Your task to perform on an android device: What's the weather going to be tomorrow? Image 0: 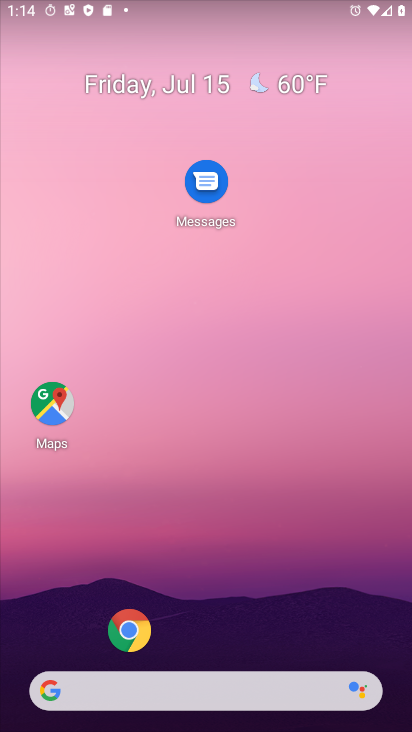
Step 0: click (119, 702)
Your task to perform on an android device: What's the weather going to be tomorrow? Image 1: 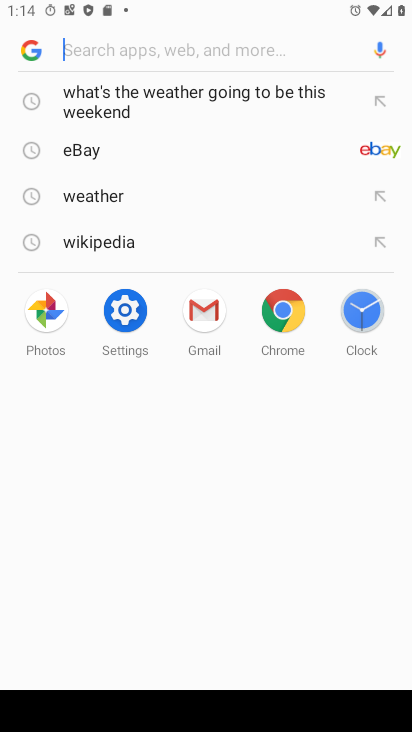
Step 1: type "What's the weather going to be tomorrow?"
Your task to perform on an android device: What's the weather going to be tomorrow? Image 2: 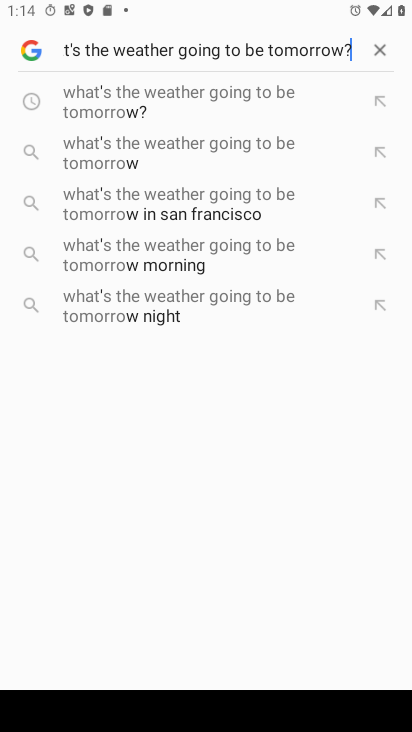
Step 2: type ""
Your task to perform on an android device: What's the weather going to be tomorrow? Image 3: 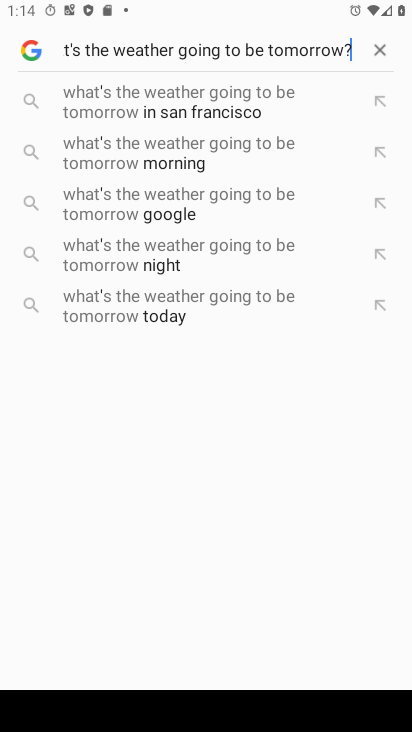
Step 3: type ""
Your task to perform on an android device: What's the weather going to be tomorrow? Image 4: 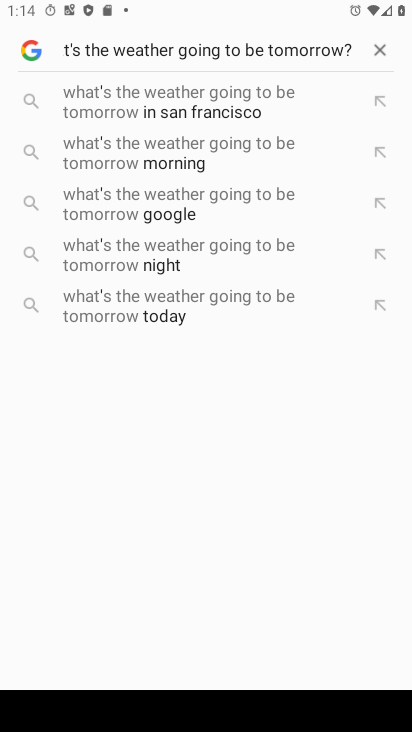
Step 4: type ""
Your task to perform on an android device: What's the weather going to be tomorrow? Image 5: 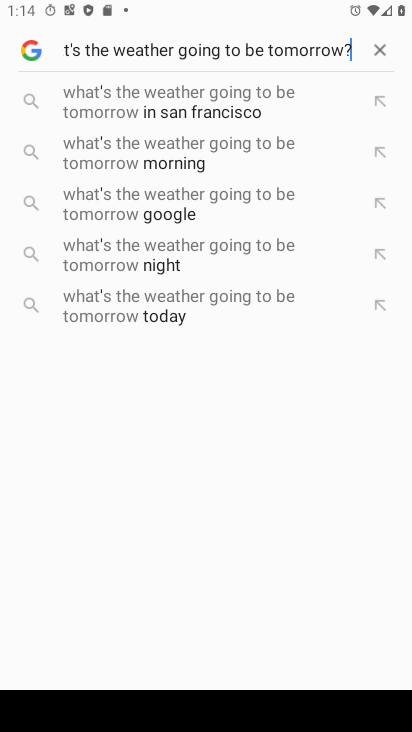
Step 5: type ""
Your task to perform on an android device: What's the weather going to be tomorrow? Image 6: 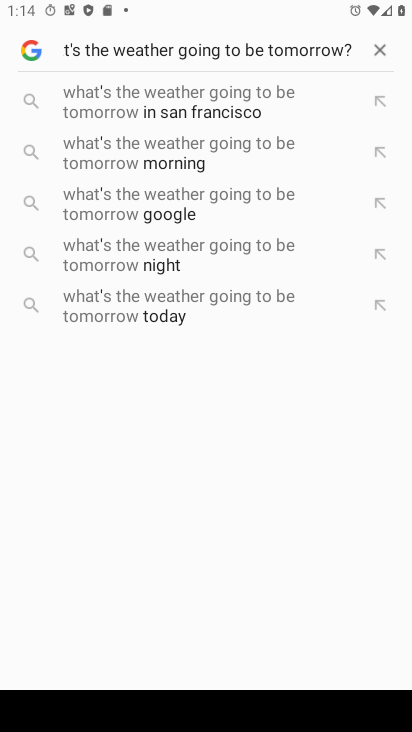
Step 6: task complete